Your task to perform on an android device: toggle show notifications on the lock screen Image 0: 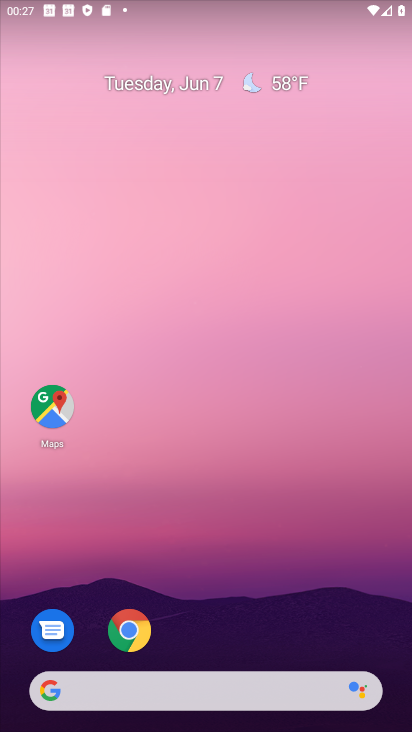
Step 0: drag from (287, 560) to (260, 92)
Your task to perform on an android device: toggle show notifications on the lock screen Image 1: 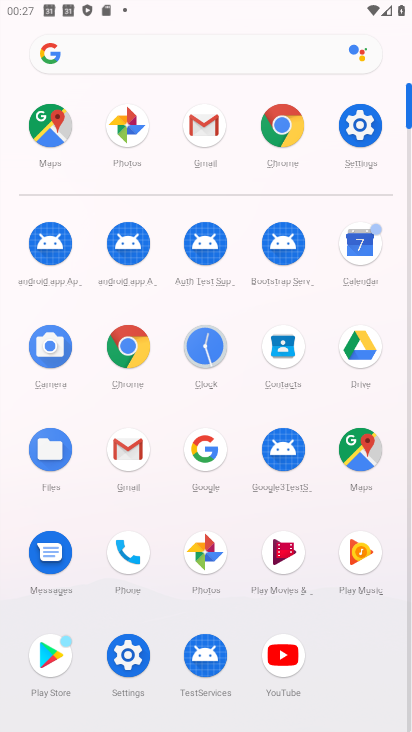
Step 1: click (131, 641)
Your task to perform on an android device: toggle show notifications on the lock screen Image 2: 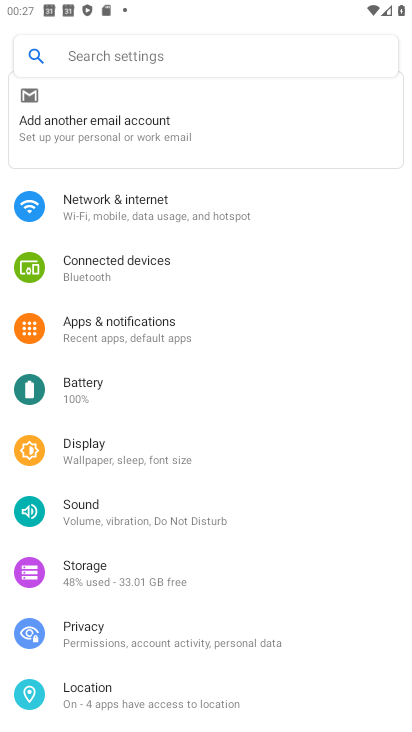
Step 2: click (138, 327)
Your task to perform on an android device: toggle show notifications on the lock screen Image 3: 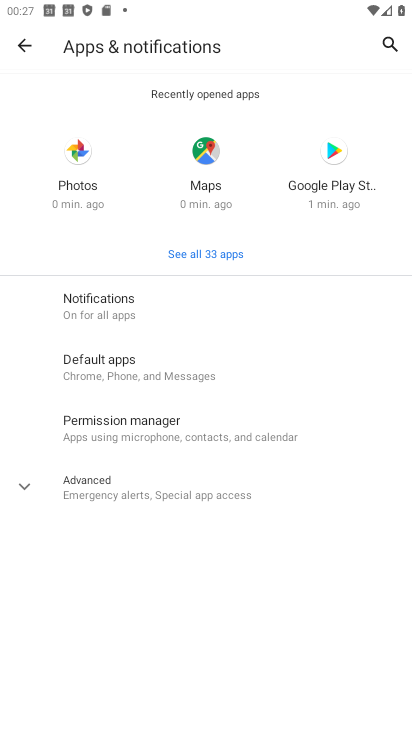
Step 3: click (151, 307)
Your task to perform on an android device: toggle show notifications on the lock screen Image 4: 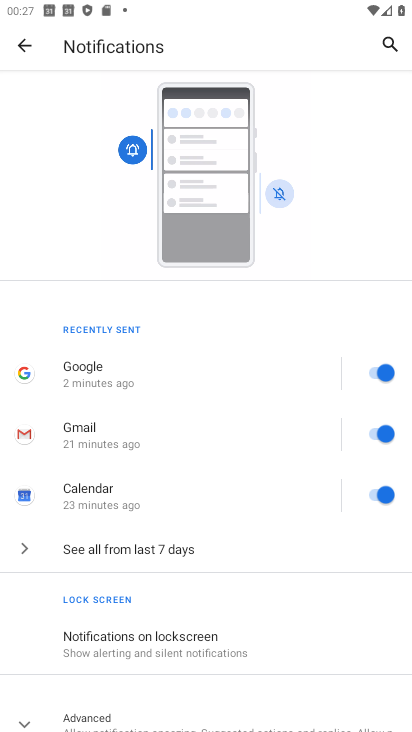
Step 4: click (143, 649)
Your task to perform on an android device: toggle show notifications on the lock screen Image 5: 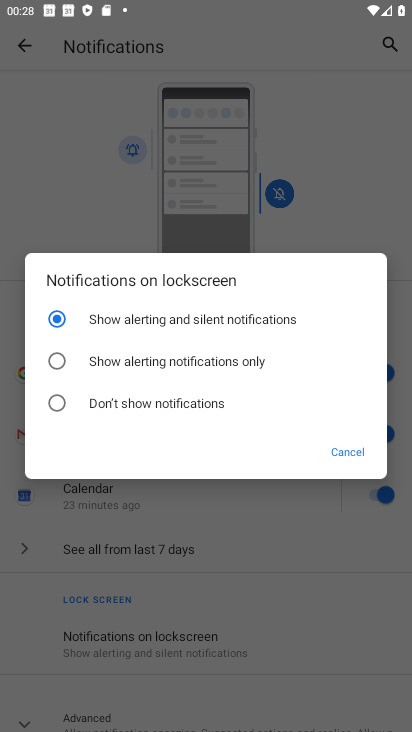
Step 5: task complete